Your task to perform on an android device: Clear the cart on target. Search for "macbook pro 15 inch" on target, select the first entry, add it to the cart, then select checkout. Image 0: 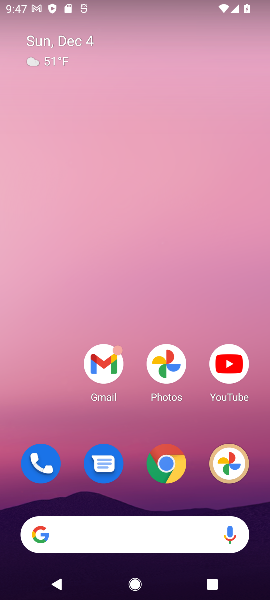
Step 0: click (183, 529)
Your task to perform on an android device: Clear the cart on target. Search for "macbook pro 15 inch" on target, select the first entry, add it to the cart, then select checkout. Image 1: 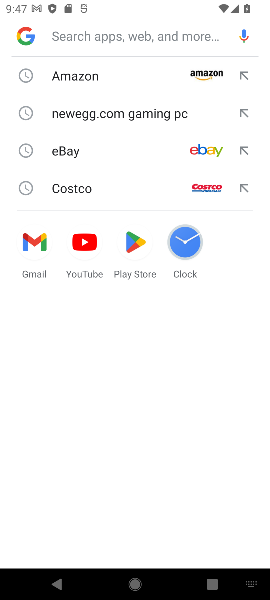
Step 1: click (91, 86)
Your task to perform on an android device: Clear the cart on target. Search for "macbook pro 15 inch" on target, select the first entry, add it to the cart, then select checkout. Image 2: 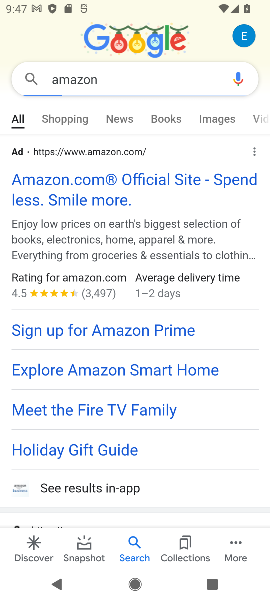
Step 2: task complete